Your task to perform on an android device: Open network settings Image 0: 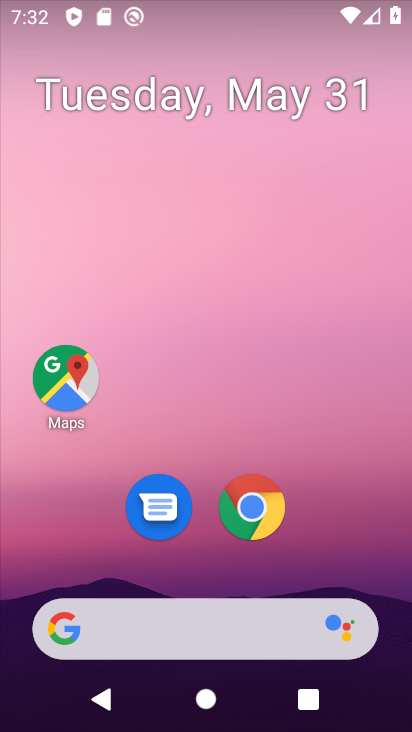
Step 0: drag from (334, 532) to (367, 168)
Your task to perform on an android device: Open network settings Image 1: 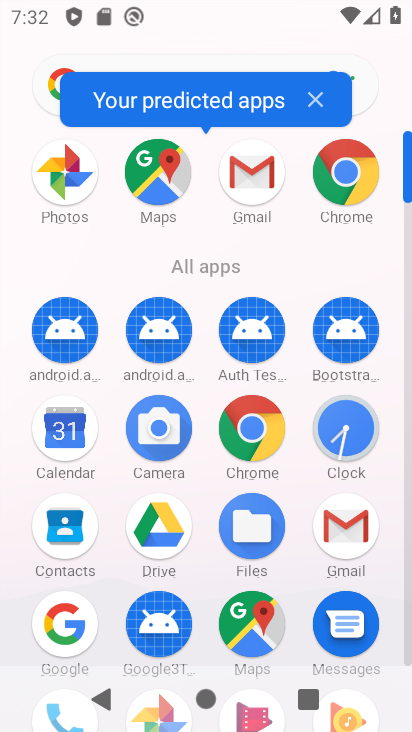
Step 1: drag from (302, 469) to (356, 161)
Your task to perform on an android device: Open network settings Image 2: 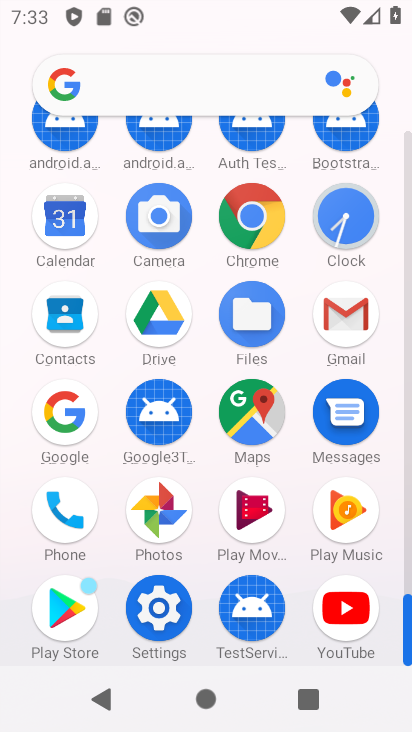
Step 2: click (166, 601)
Your task to perform on an android device: Open network settings Image 3: 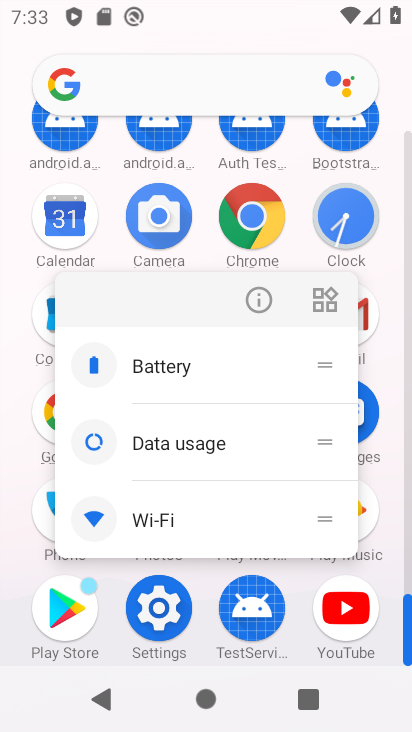
Step 3: click (164, 603)
Your task to perform on an android device: Open network settings Image 4: 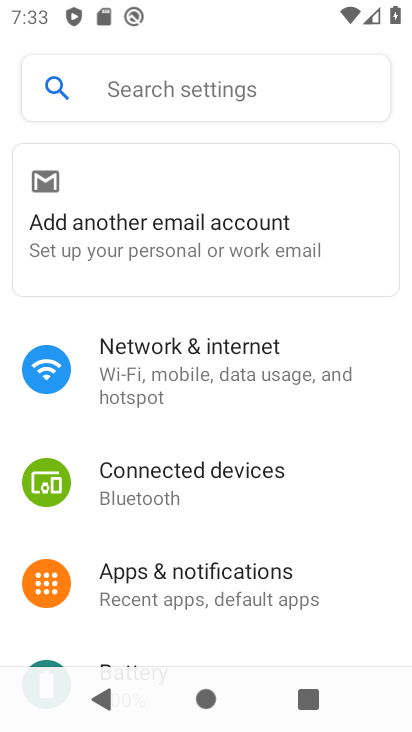
Step 4: click (166, 351)
Your task to perform on an android device: Open network settings Image 5: 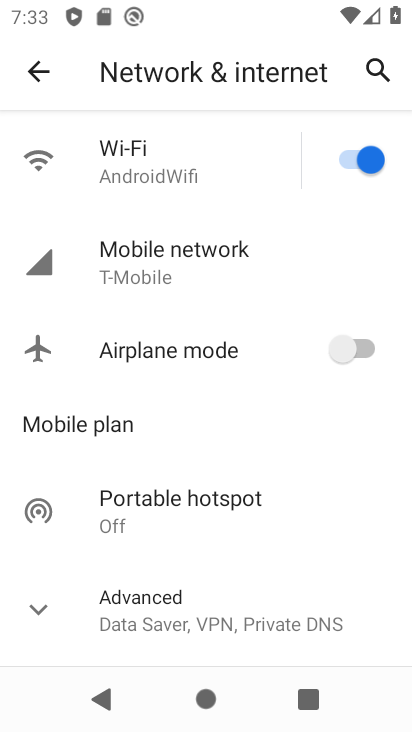
Step 5: drag from (171, 612) to (256, 286)
Your task to perform on an android device: Open network settings Image 6: 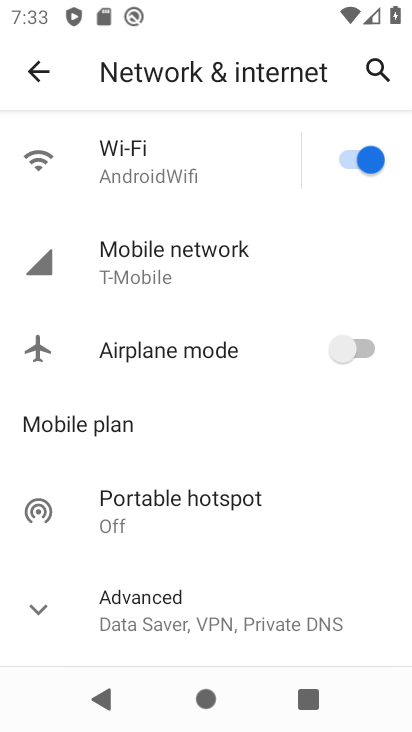
Step 6: click (202, 622)
Your task to perform on an android device: Open network settings Image 7: 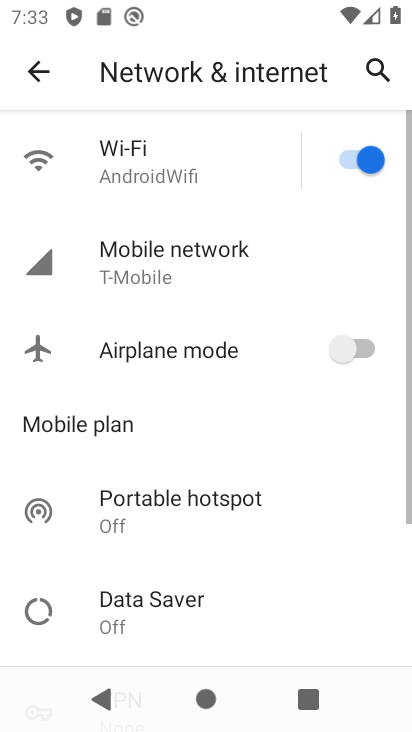
Step 7: task complete